Your task to perform on an android device: What's the weather? Image 0: 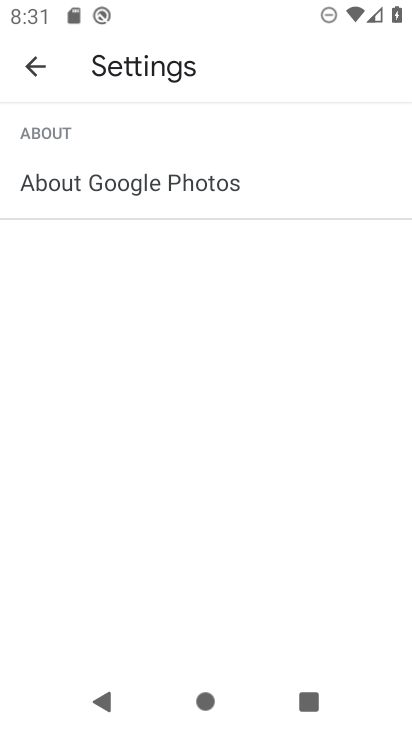
Step 0: press home button
Your task to perform on an android device: What's the weather? Image 1: 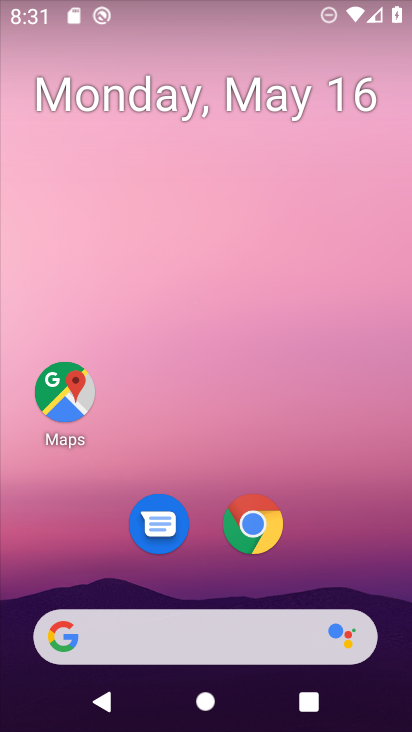
Step 1: click (249, 646)
Your task to perform on an android device: What's the weather? Image 2: 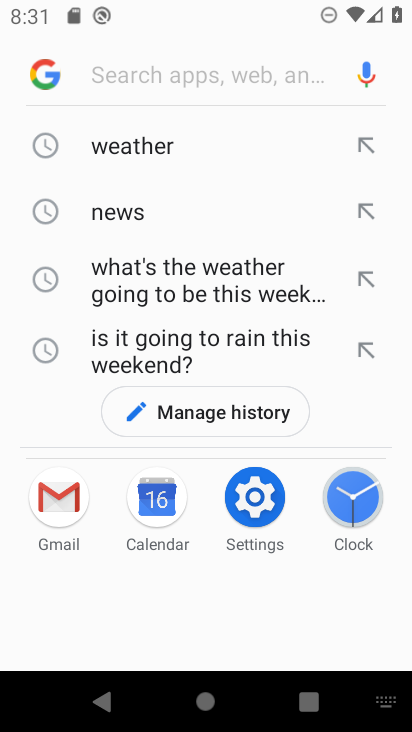
Step 2: click (139, 134)
Your task to perform on an android device: What's the weather? Image 3: 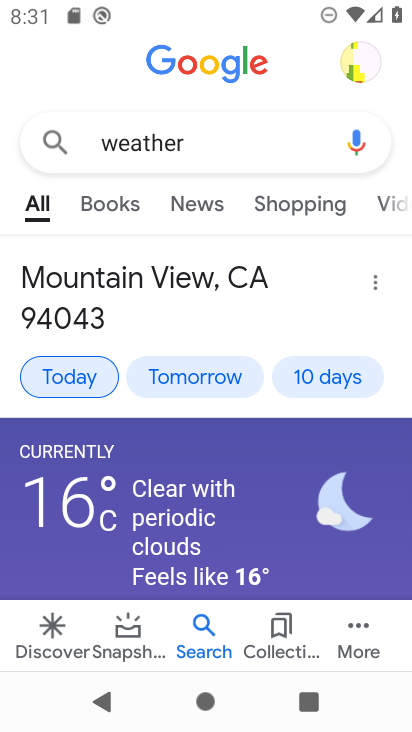
Step 3: click (84, 376)
Your task to perform on an android device: What's the weather? Image 4: 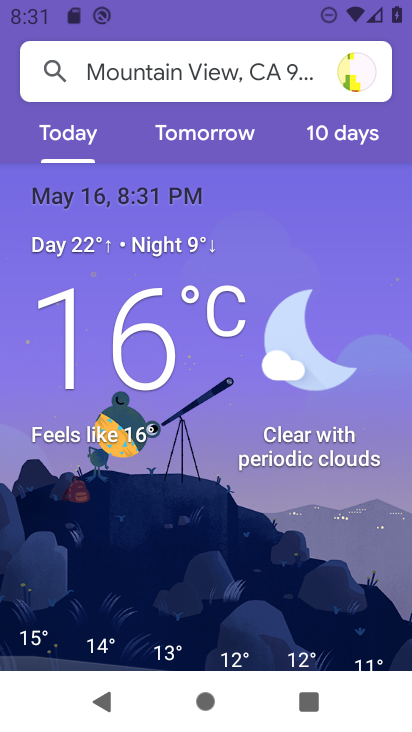
Step 4: task complete